Your task to perform on an android device: Set the phone to "Do not disturb". Image 0: 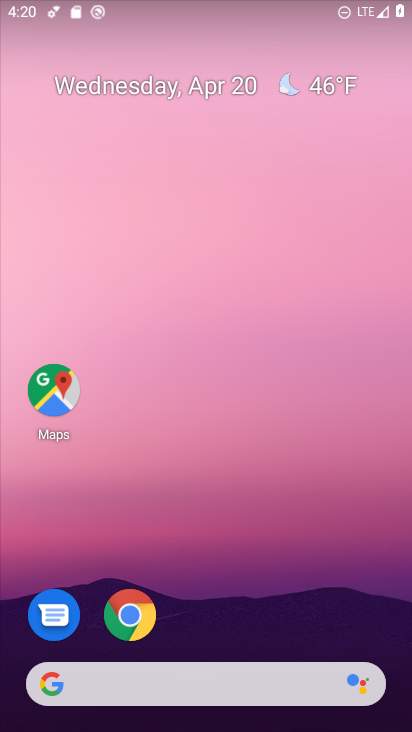
Step 0: drag from (205, 55) to (206, 571)
Your task to perform on an android device: Set the phone to "Do not disturb". Image 1: 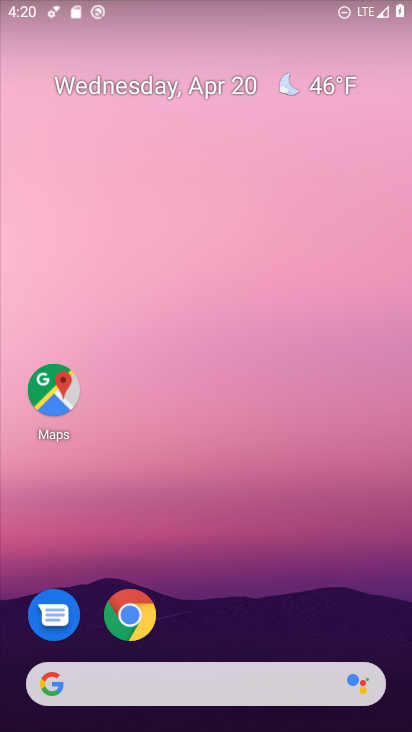
Step 1: drag from (247, 20) to (208, 548)
Your task to perform on an android device: Set the phone to "Do not disturb". Image 2: 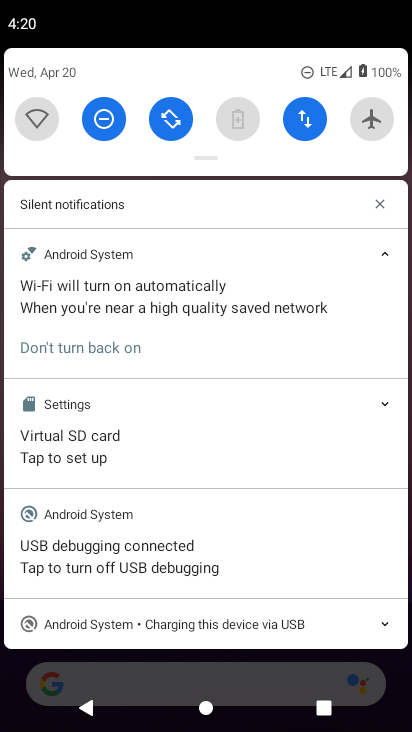
Step 2: click (107, 119)
Your task to perform on an android device: Set the phone to "Do not disturb". Image 3: 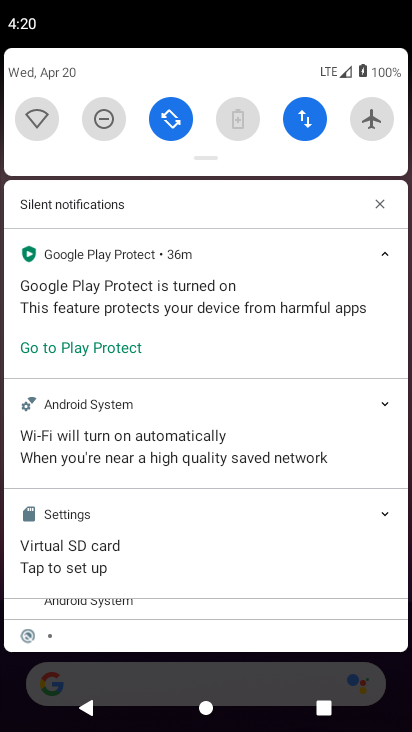
Step 3: task complete